Your task to perform on an android device: Go to privacy settings Image 0: 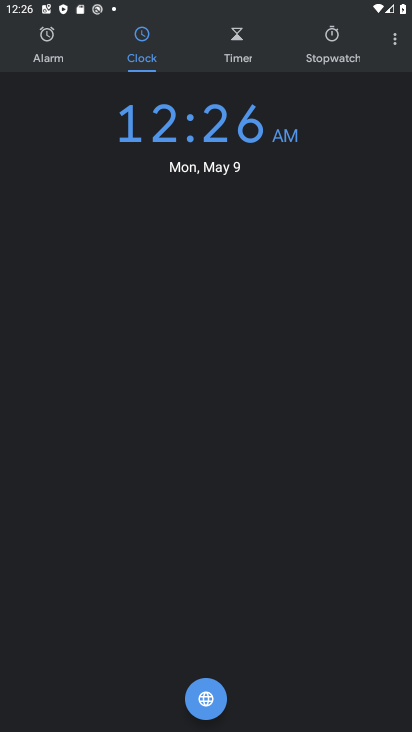
Step 0: drag from (317, 666) to (111, 27)
Your task to perform on an android device: Go to privacy settings Image 1: 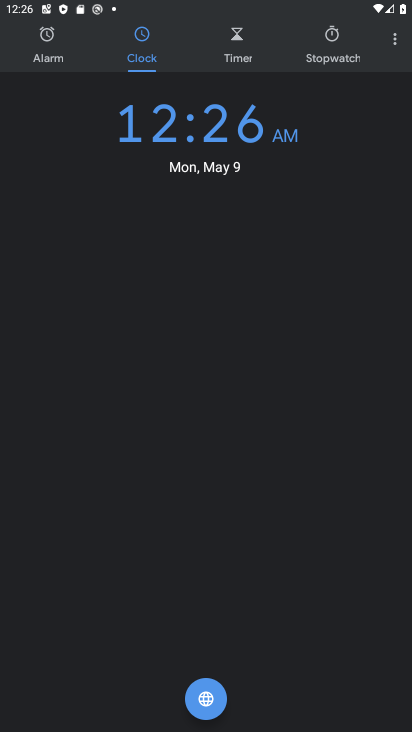
Step 1: press home button
Your task to perform on an android device: Go to privacy settings Image 2: 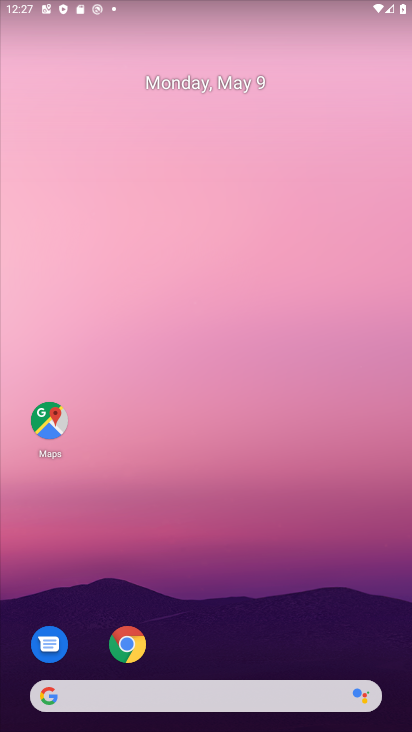
Step 2: drag from (305, 594) to (124, 93)
Your task to perform on an android device: Go to privacy settings Image 3: 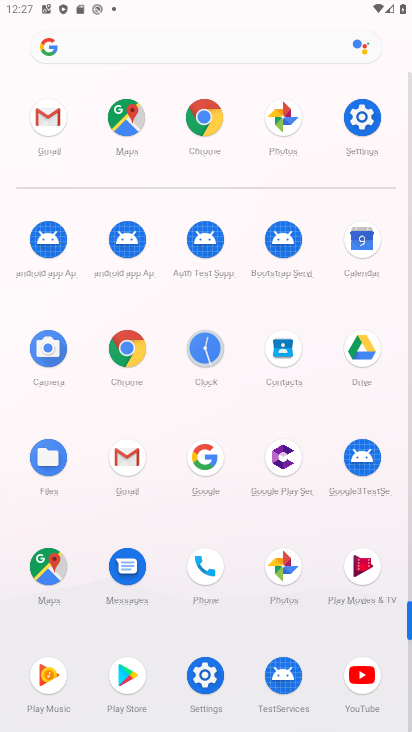
Step 3: click (363, 113)
Your task to perform on an android device: Go to privacy settings Image 4: 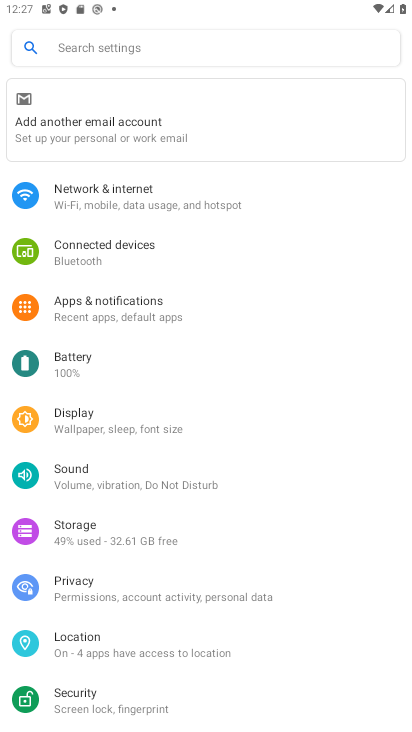
Step 4: click (65, 584)
Your task to perform on an android device: Go to privacy settings Image 5: 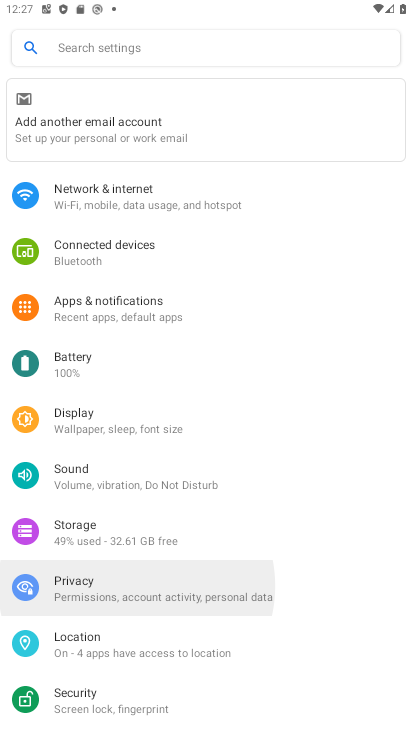
Step 5: click (65, 584)
Your task to perform on an android device: Go to privacy settings Image 6: 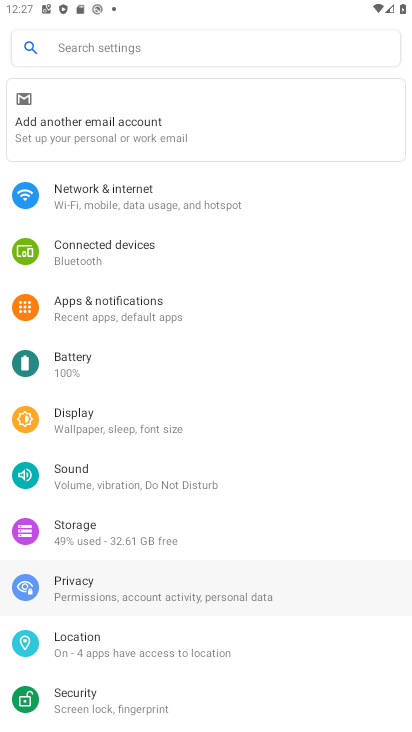
Step 6: click (66, 584)
Your task to perform on an android device: Go to privacy settings Image 7: 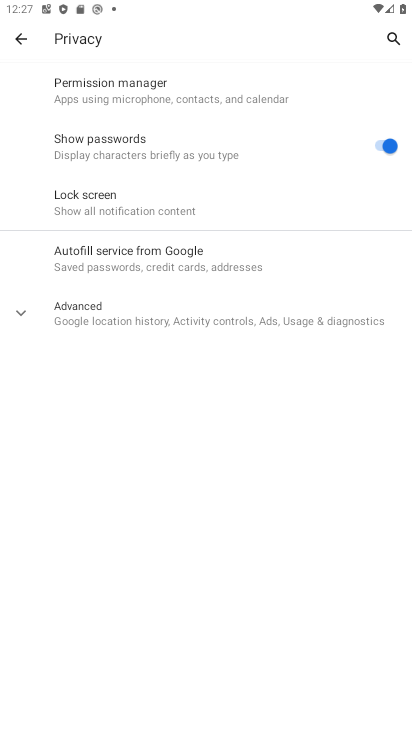
Step 7: task complete